Your task to perform on an android device: read, delete, or share a saved page in the chrome app Image 0: 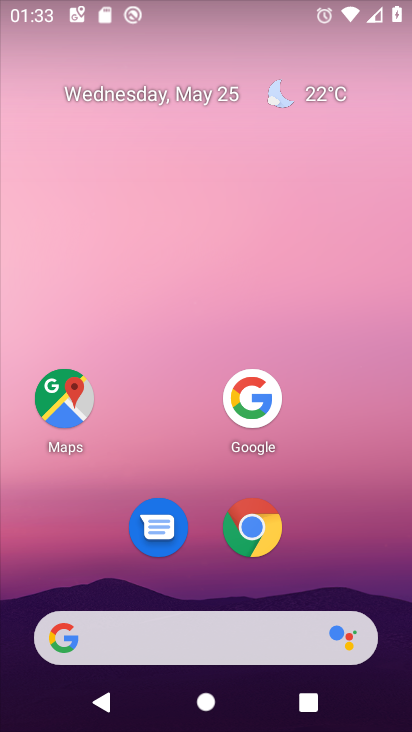
Step 0: press home button
Your task to perform on an android device: read, delete, or share a saved page in the chrome app Image 1: 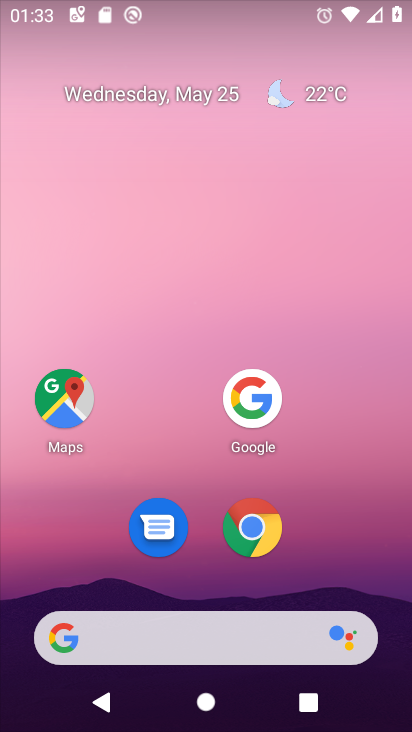
Step 1: click (252, 529)
Your task to perform on an android device: read, delete, or share a saved page in the chrome app Image 2: 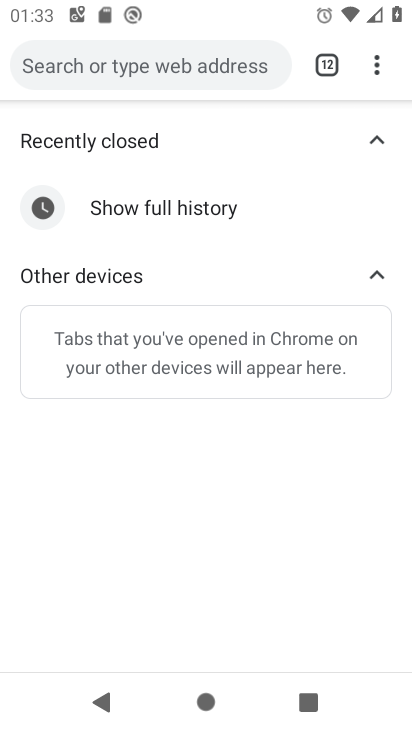
Step 2: drag from (377, 70) to (211, 437)
Your task to perform on an android device: read, delete, or share a saved page in the chrome app Image 3: 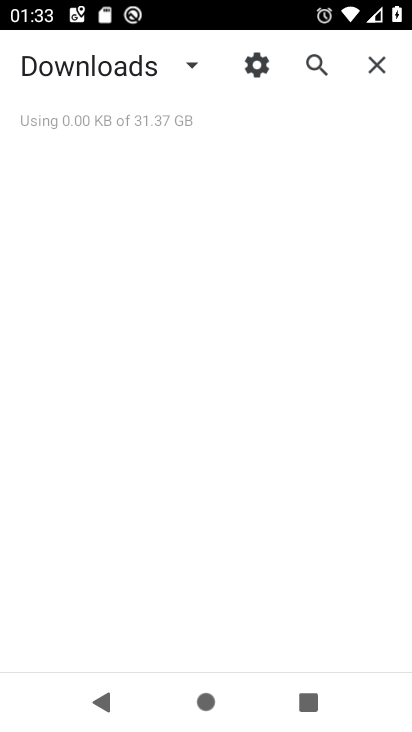
Step 3: click (185, 64)
Your task to perform on an android device: read, delete, or share a saved page in the chrome app Image 4: 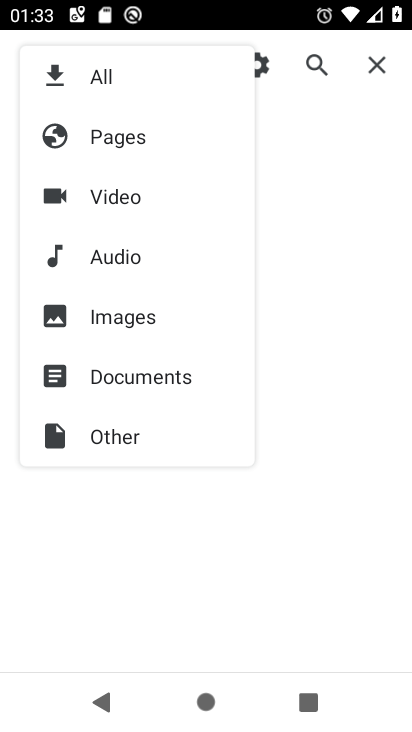
Step 4: click (94, 142)
Your task to perform on an android device: read, delete, or share a saved page in the chrome app Image 5: 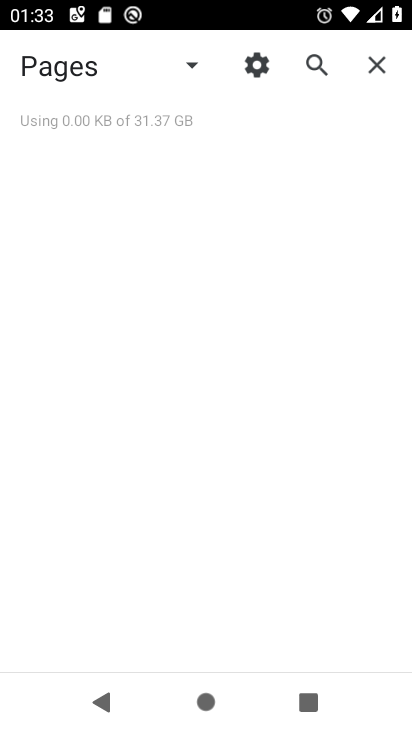
Step 5: task complete